Your task to perform on an android device: Do I have any events today? Image 0: 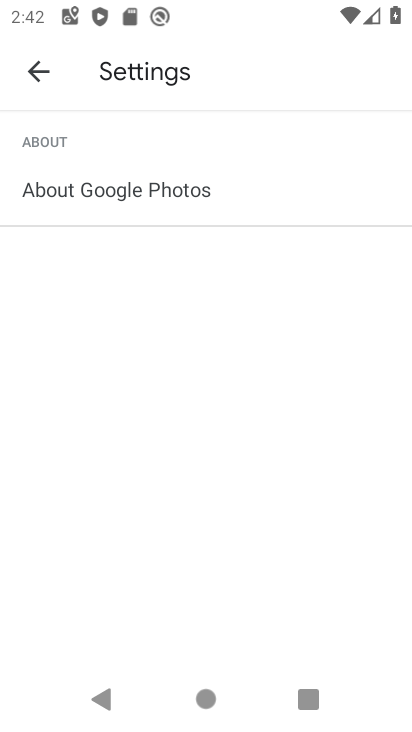
Step 0: click (23, 53)
Your task to perform on an android device: Do I have any events today? Image 1: 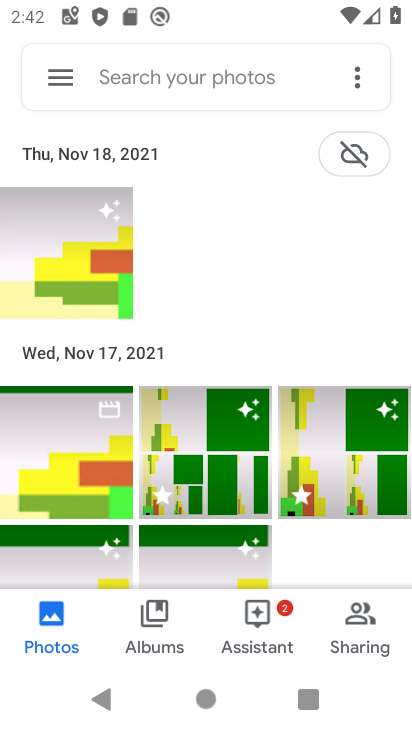
Step 1: press back button
Your task to perform on an android device: Do I have any events today? Image 2: 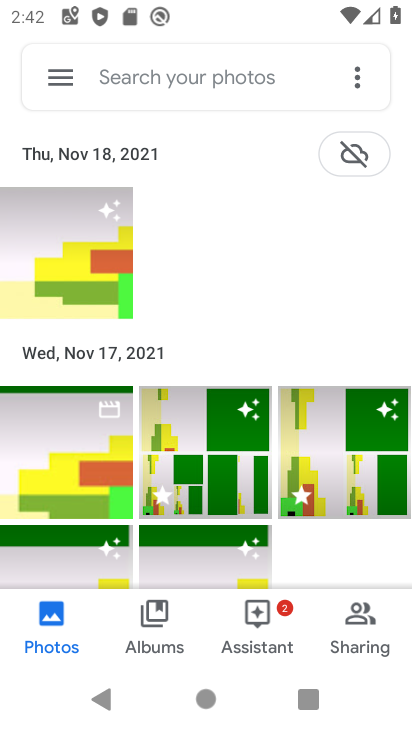
Step 2: press back button
Your task to perform on an android device: Do I have any events today? Image 3: 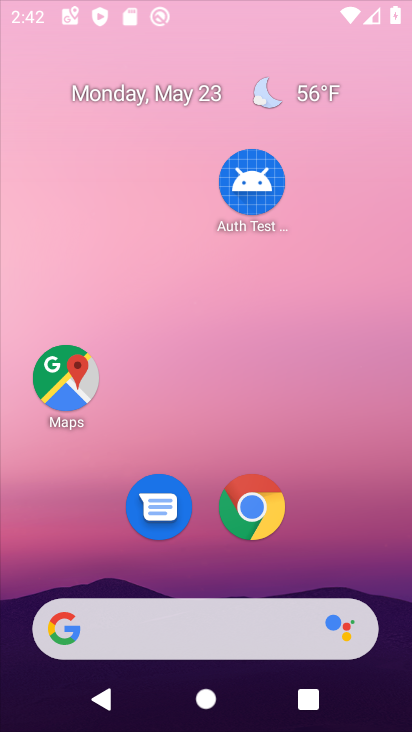
Step 3: press back button
Your task to perform on an android device: Do I have any events today? Image 4: 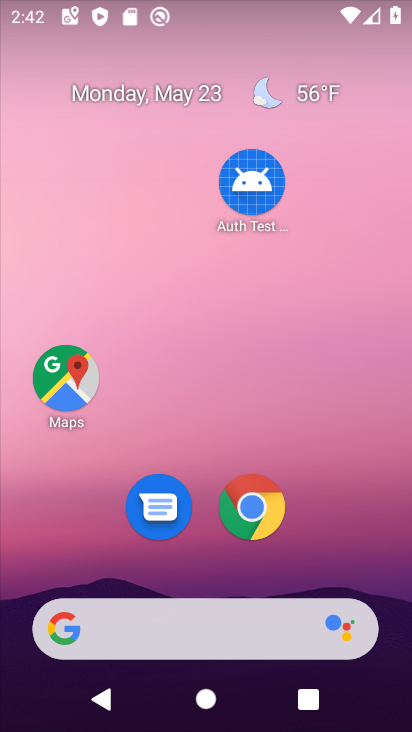
Step 4: press back button
Your task to perform on an android device: Do I have any events today? Image 5: 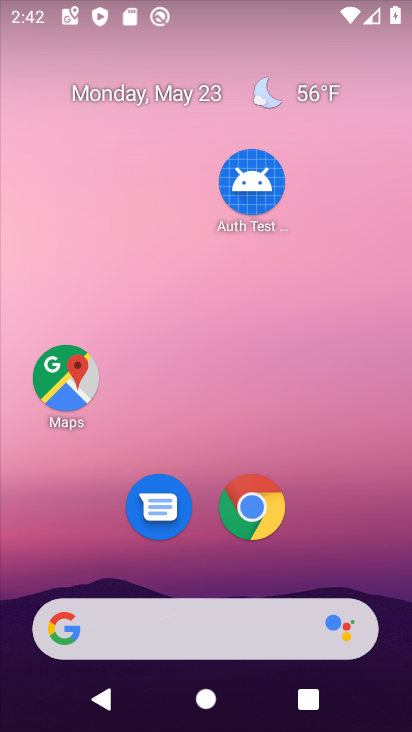
Step 5: drag from (260, 712) to (168, 211)
Your task to perform on an android device: Do I have any events today? Image 6: 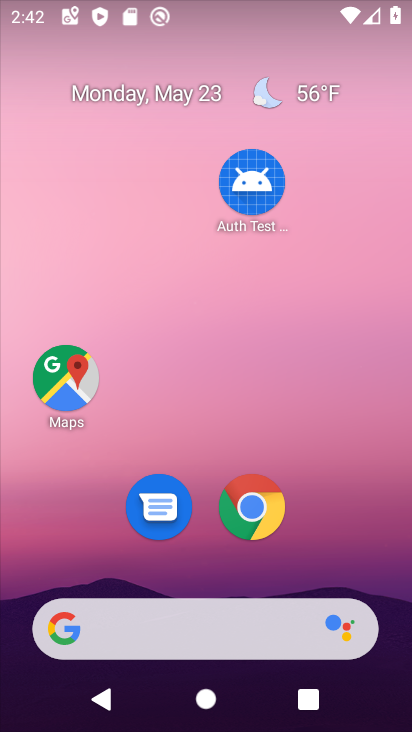
Step 6: drag from (251, 585) to (205, 87)
Your task to perform on an android device: Do I have any events today? Image 7: 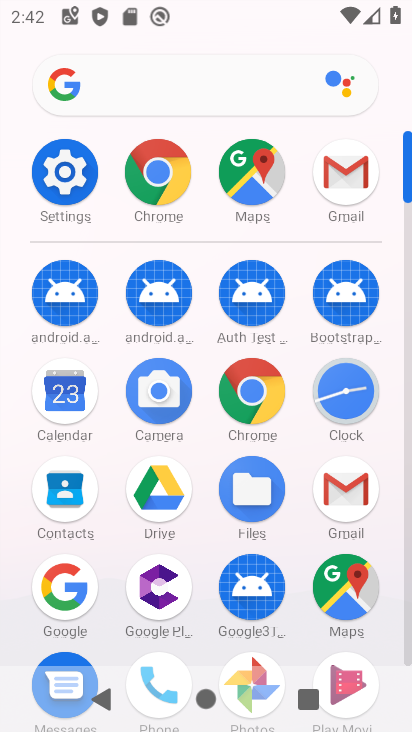
Step 7: click (66, 408)
Your task to perform on an android device: Do I have any events today? Image 8: 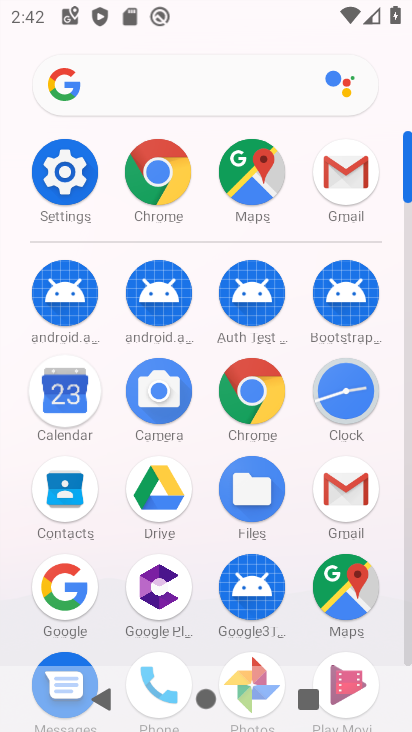
Step 8: click (66, 408)
Your task to perform on an android device: Do I have any events today? Image 9: 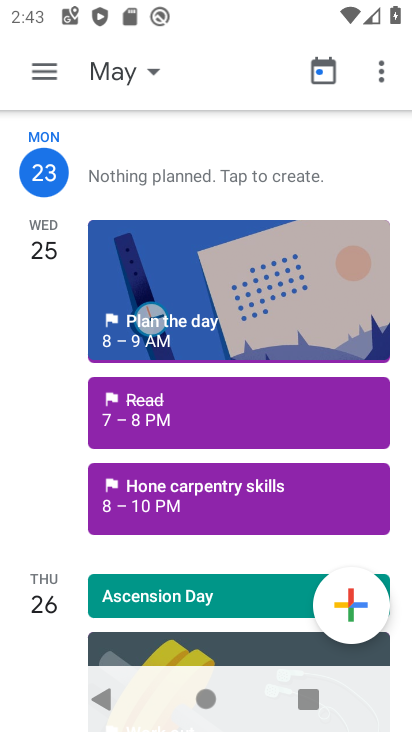
Step 9: click (134, 292)
Your task to perform on an android device: Do I have any events today? Image 10: 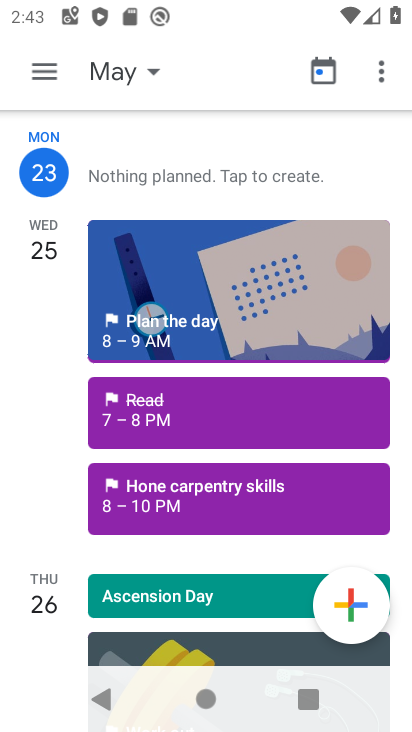
Step 10: click (135, 294)
Your task to perform on an android device: Do I have any events today? Image 11: 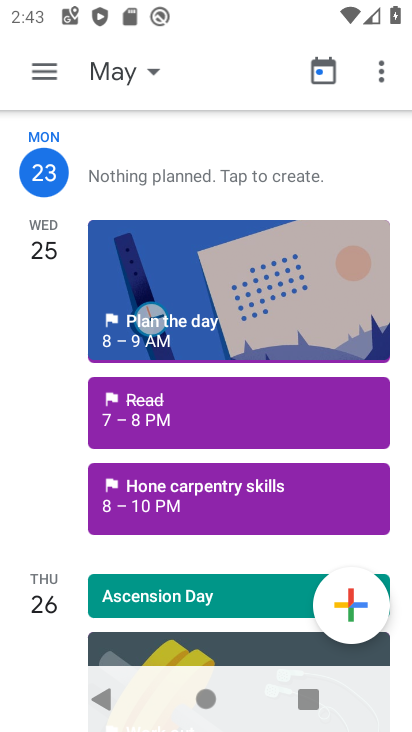
Step 11: drag from (112, 241) to (213, 456)
Your task to perform on an android device: Do I have any events today? Image 12: 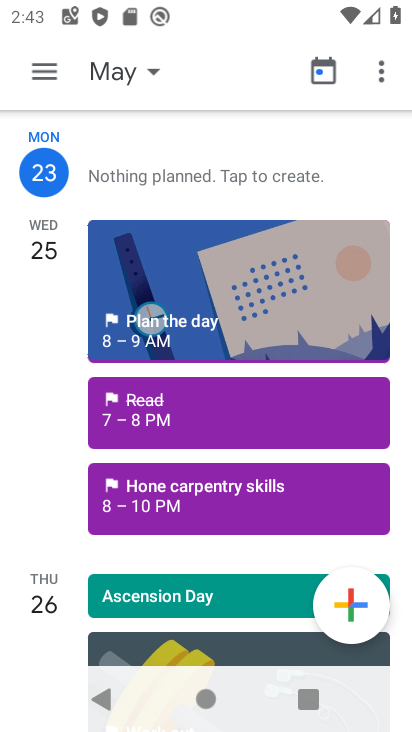
Step 12: click (248, 343)
Your task to perform on an android device: Do I have any events today? Image 13: 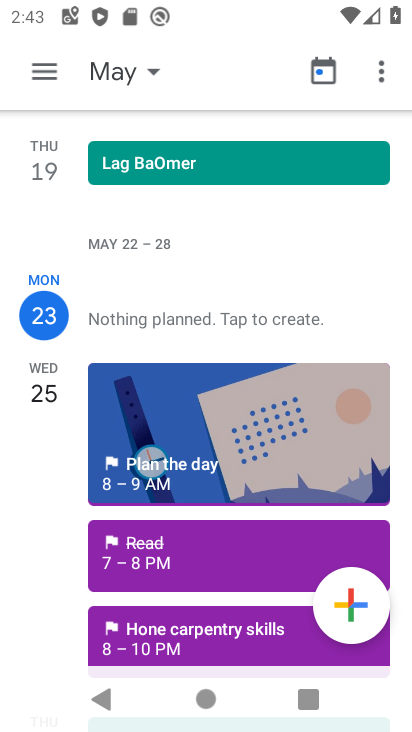
Step 13: task complete